Your task to perform on an android device: Open wifi settings Image 0: 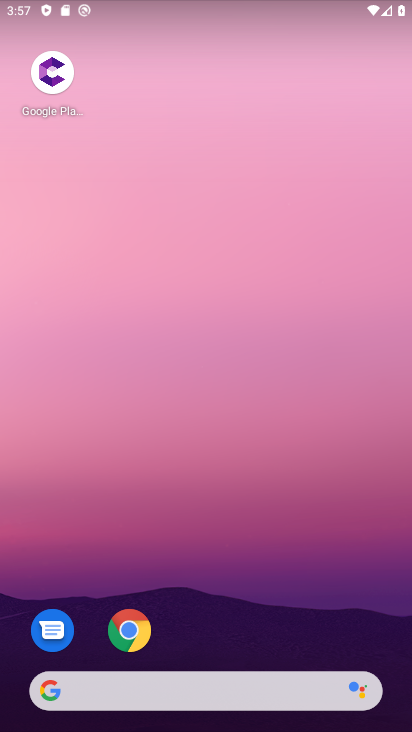
Step 0: drag from (200, 325) to (198, 192)
Your task to perform on an android device: Open wifi settings Image 1: 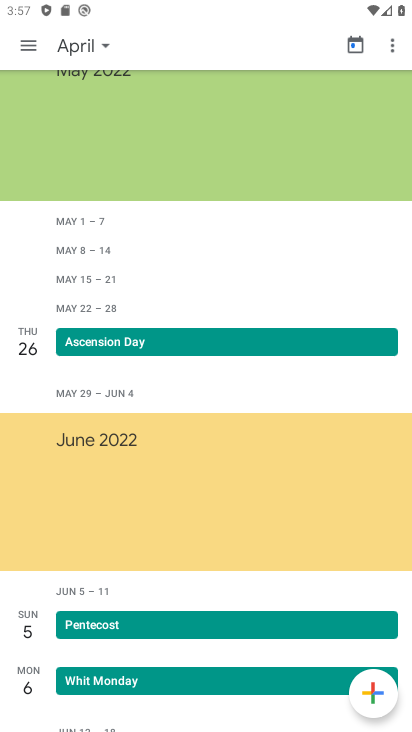
Step 1: press home button
Your task to perform on an android device: Open wifi settings Image 2: 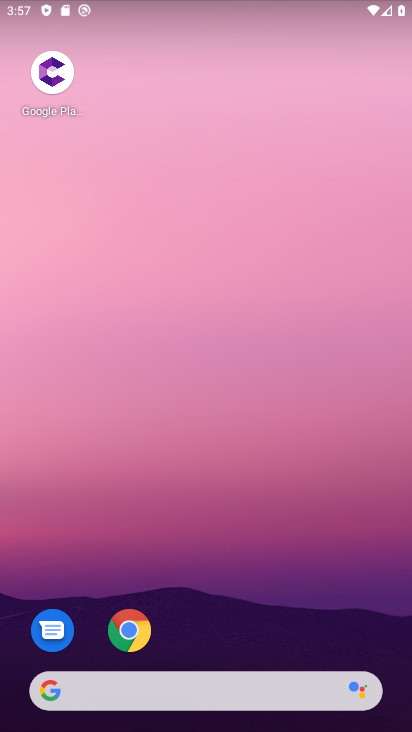
Step 2: drag from (207, 609) to (170, 97)
Your task to perform on an android device: Open wifi settings Image 3: 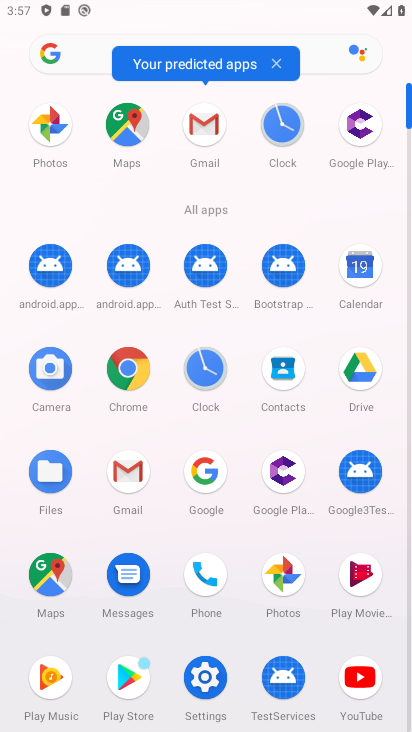
Step 3: click (198, 673)
Your task to perform on an android device: Open wifi settings Image 4: 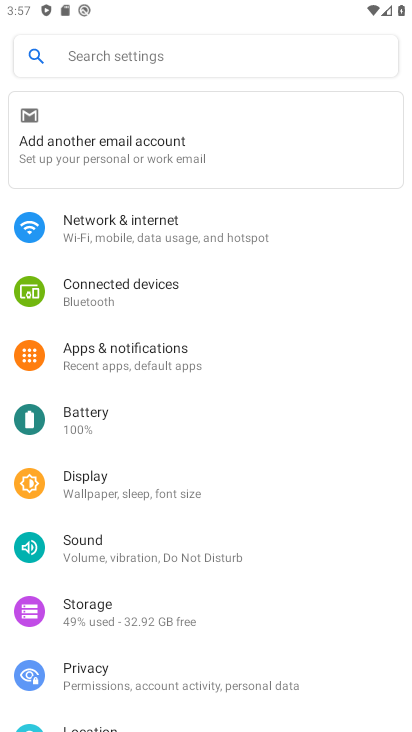
Step 4: click (141, 240)
Your task to perform on an android device: Open wifi settings Image 5: 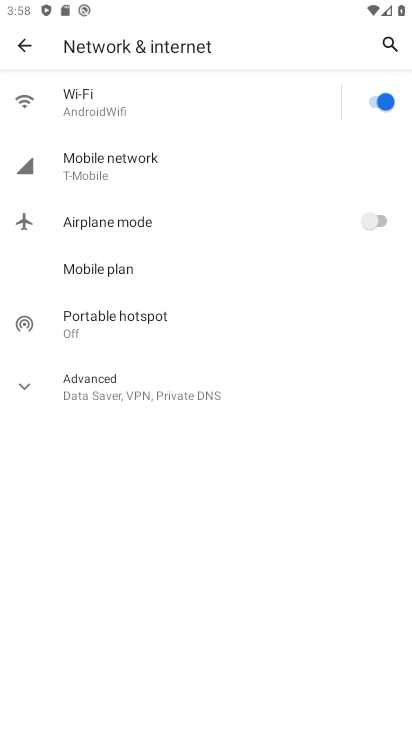
Step 5: click (124, 98)
Your task to perform on an android device: Open wifi settings Image 6: 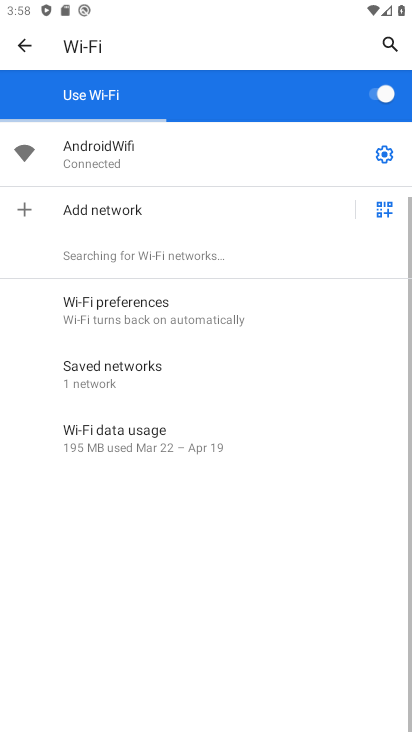
Step 6: task complete